Your task to perform on an android device: set default search engine in the chrome app Image 0: 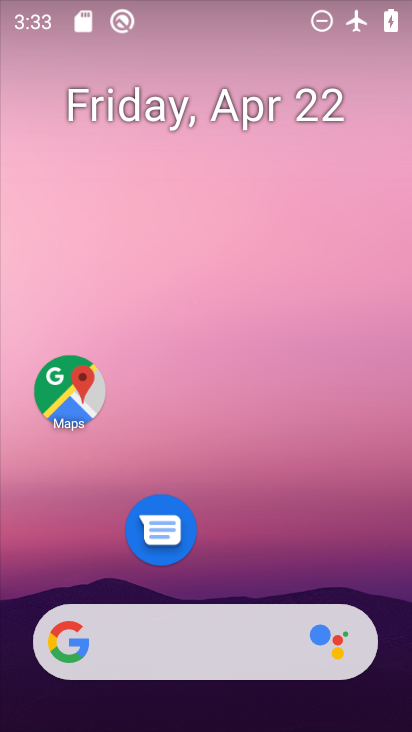
Step 0: drag from (290, 298) to (282, 6)
Your task to perform on an android device: set default search engine in the chrome app Image 1: 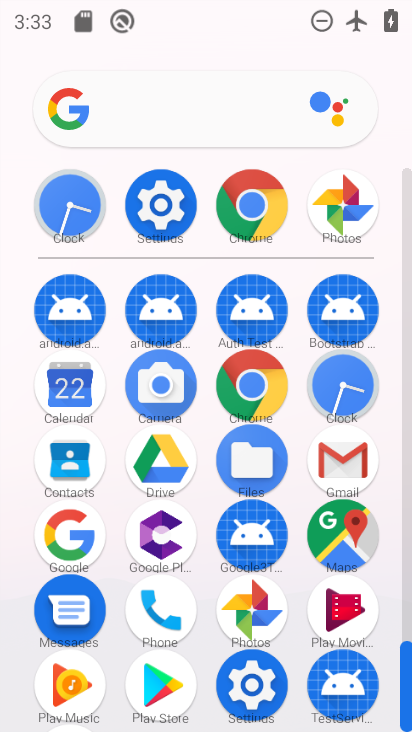
Step 1: click (244, 214)
Your task to perform on an android device: set default search engine in the chrome app Image 2: 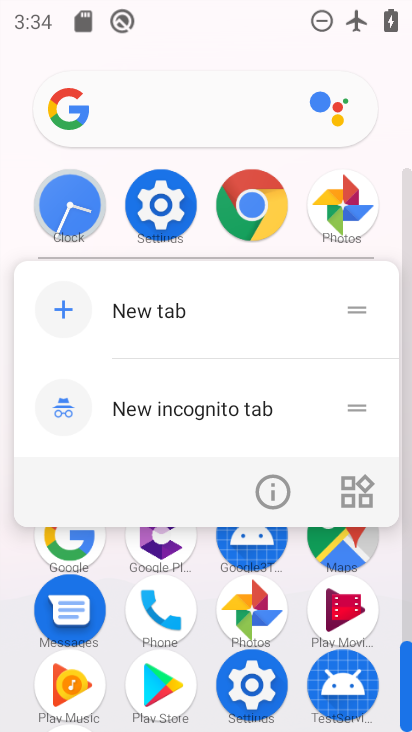
Step 2: click (243, 214)
Your task to perform on an android device: set default search engine in the chrome app Image 3: 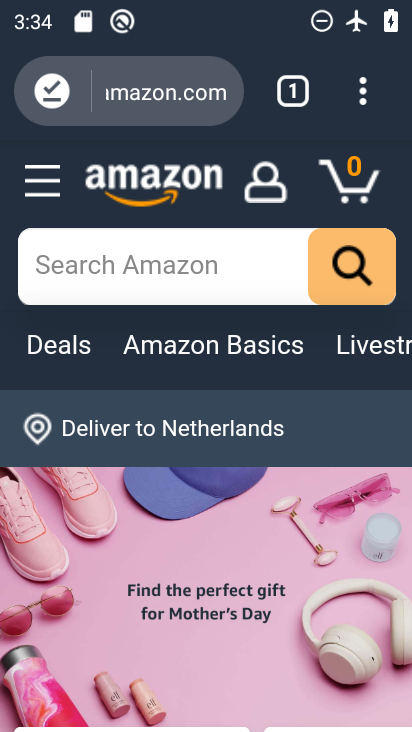
Step 3: click (361, 99)
Your task to perform on an android device: set default search engine in the chrome app Image 4: 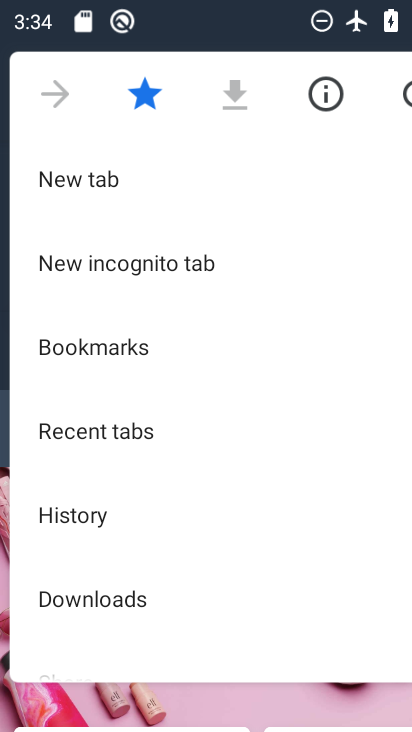
Step 4: click (270, 122)
Your task to perform on an android device: set default search engine in the chrome app Image 5: 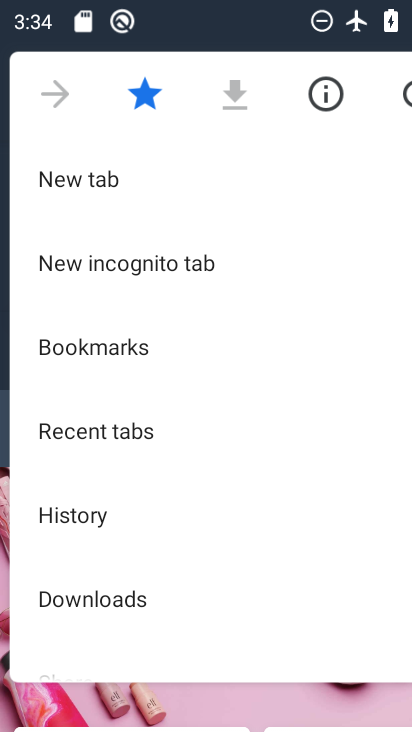
Step 5: drag from (240, 638) to (263, 163)
Your task to perform on an android device: set default search engine in the chrome app Image 6: 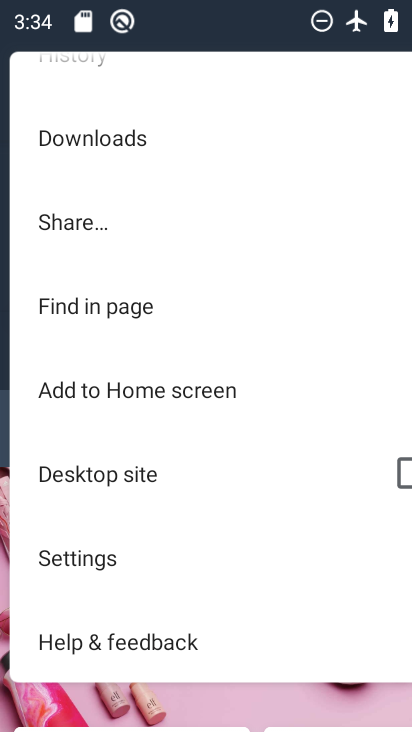
Step 6: click (110, 558)
Your task to perform on an android device: set default search engine in the chrome app Image 7: 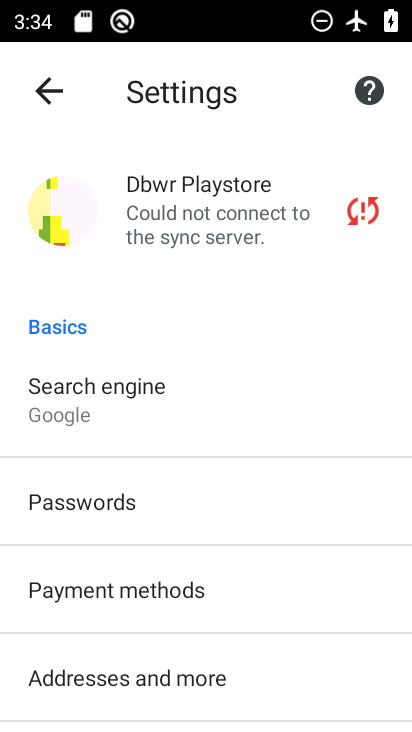
Step 7: click (112, 386)
Your task to perform on an android device: set default search engine in the chrome app Image 8: 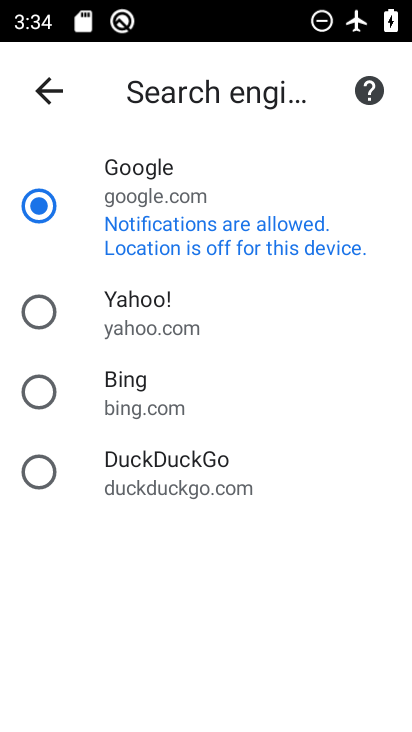
Step 8: click (40, 315)
Your task to perform on an android device: set default search engine in the chrome app Image 9: 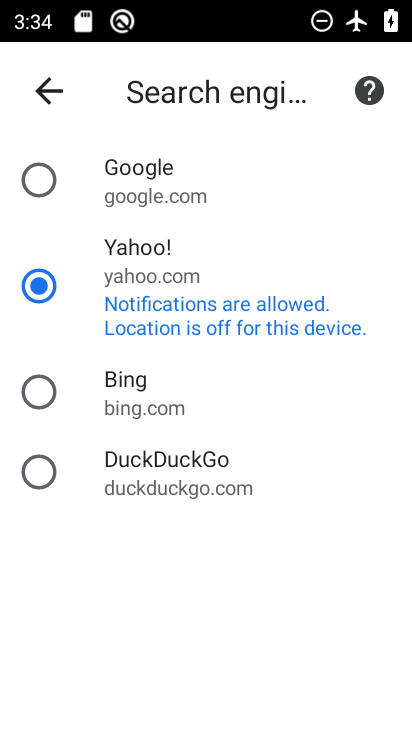
Step 9: task complete